Your task to perform on an android device: Open Yahoo.com Image 0: 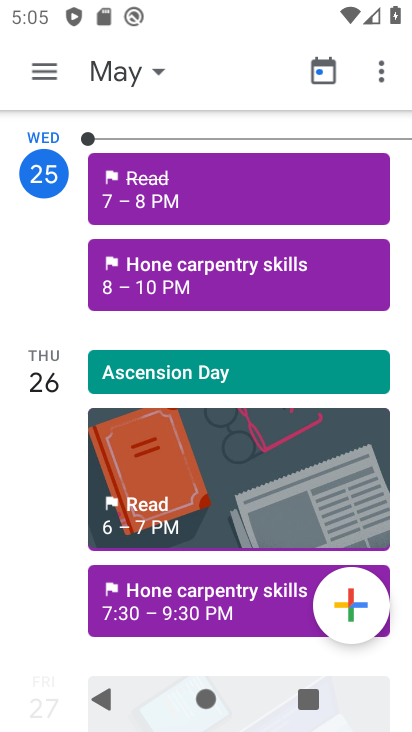
Step 0: press back button
Your task to perform on an android device: Open Yahoo.com Image 1: 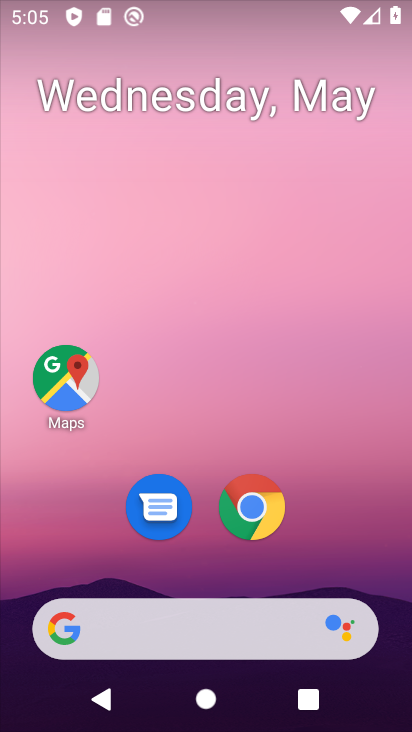
Step 1: click (254, 508)
Your task to perform on an android device: Open Yahoo.com Image 2: 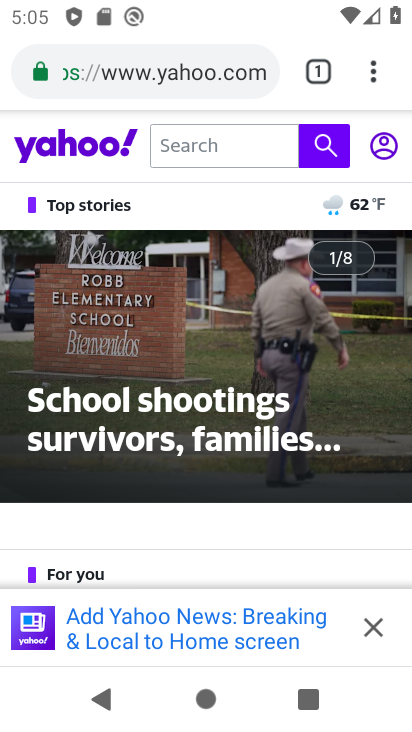
Step 2: click (258, 72)
Your task to perform on an android device: Open Yahoo.com Image 3: 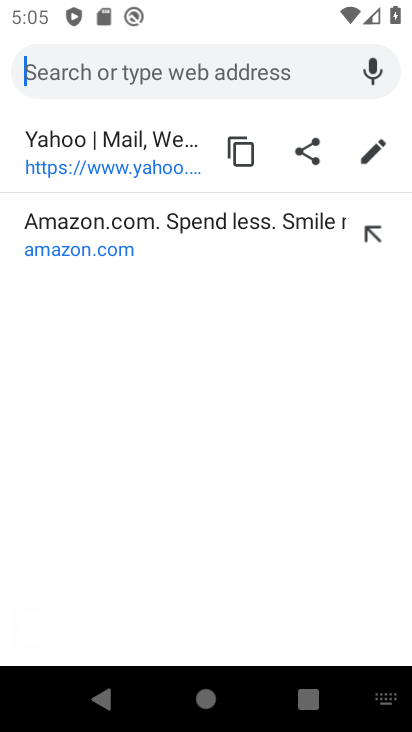
Step 3: type "Yahoo.com"
Your task to perform on an android device: Open Yahoo.com Image 4: 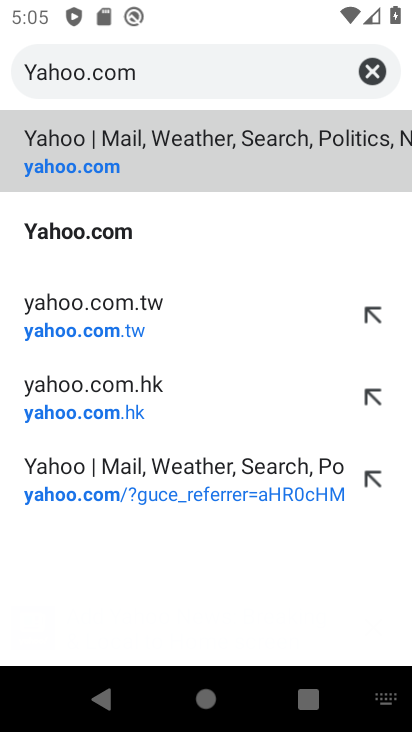
Step 4: click (85, 225)
Your task to perform on an android device: Open Yahoo.com Image 5: 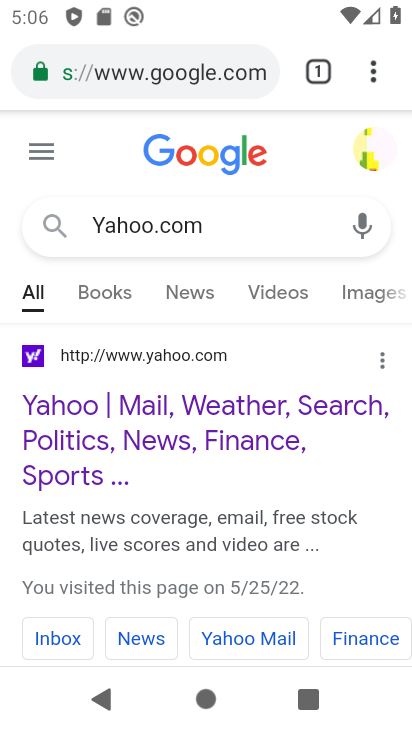
Step 5: click (186, 401)
Your task to perform on an android device: Open Yahoo.com Image 6: 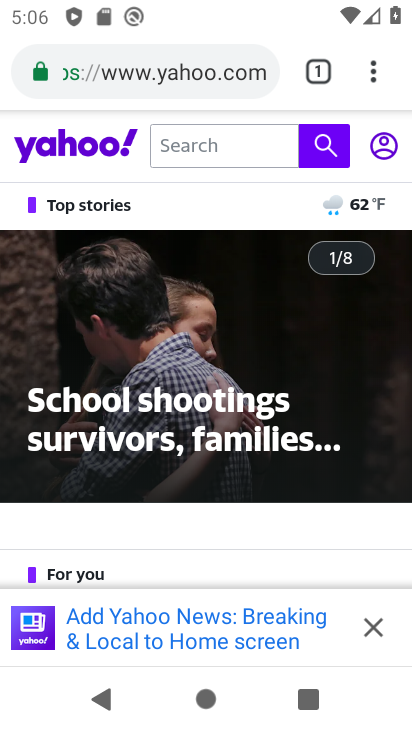
Step 6: task complete